Your task to perform on an android device: open chrome and create a bookmark for the current page Image 0: 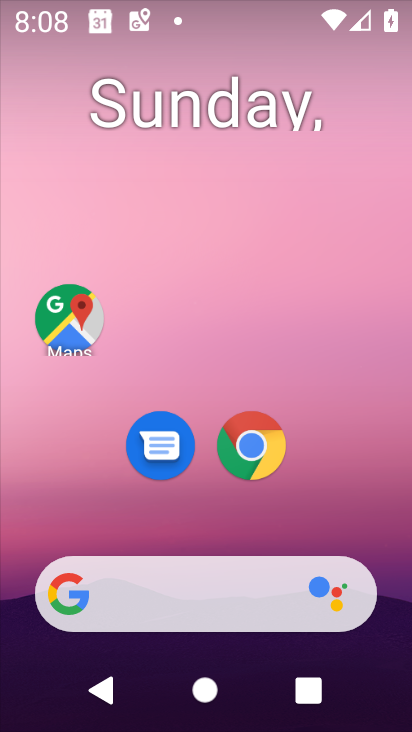
Step 0: click (251, 438)
Your task to perform on an android device: open chrome and create a bookmark for the current page Image 1: 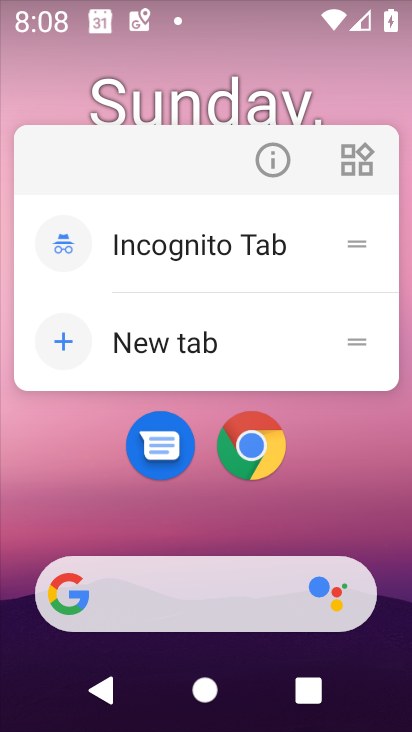
Step 1: click (258, 447)
Your task to perform on an android device: open chrome and create a bookmark for the current page Image 2: 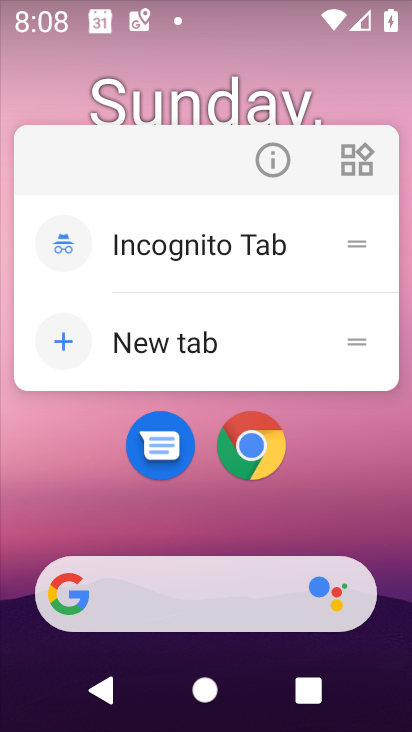
Step 2: click (258, 447)
Your task to perform on an android device: open chrome and create a bookmark for the current page Image 3: 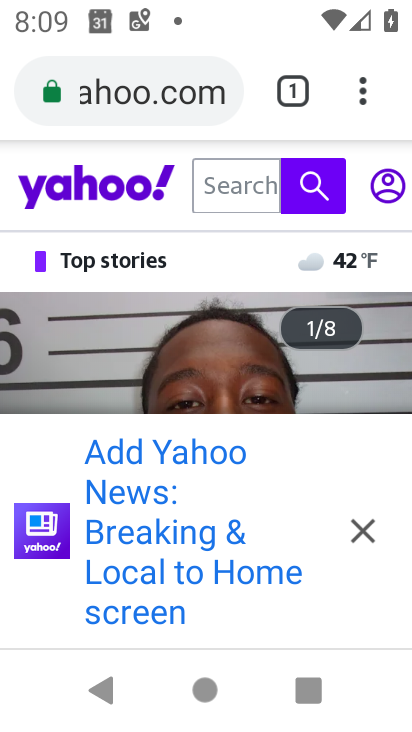
Step 3: click (371, 87)
Your task to perform on an android device: open chrome and create a bookmark for the current page Image 4: 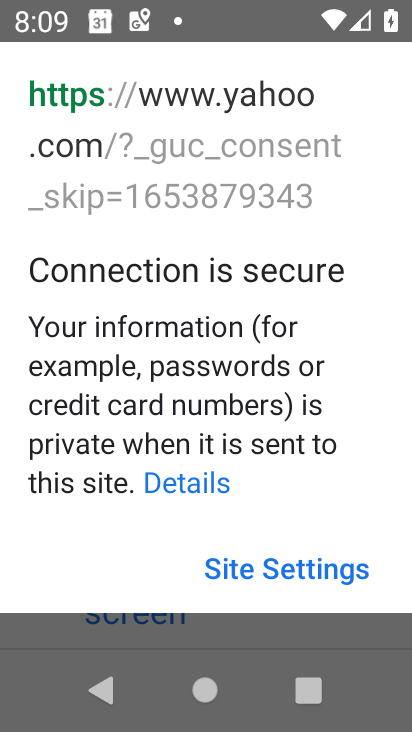
Step 4: press back button
Your task to perform on an android device: open chrome and create a bookmark for the current page Image 5: 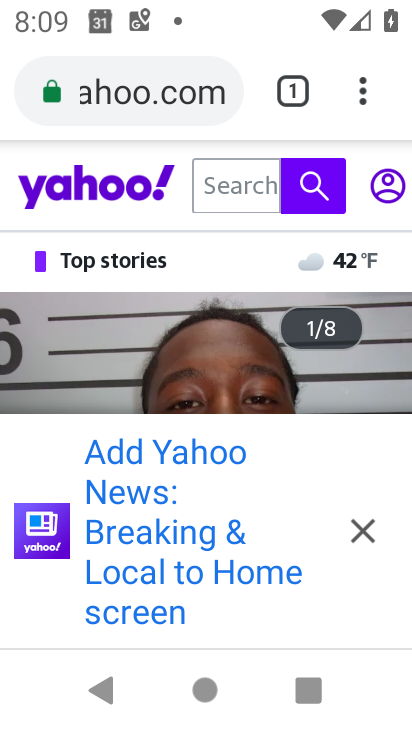
Step 5: click (355, 94)
Your task to perform on an android device: open chrome and create a bookmark for the current page Image 6: 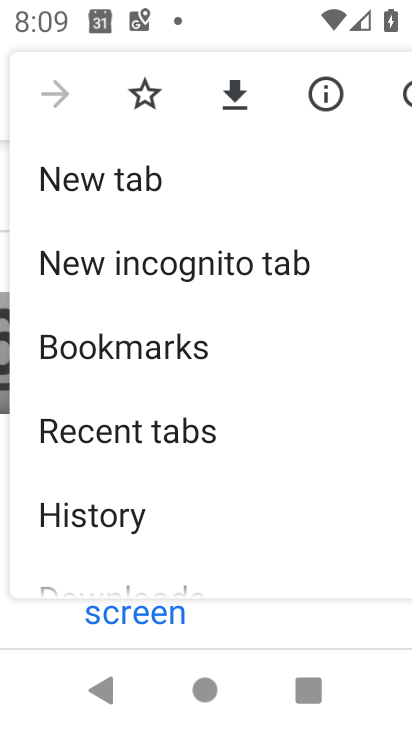
Step 6: click (143, 85)
Your task to perform on an android device: open chrome and create a bookmark for the current page Image 7: 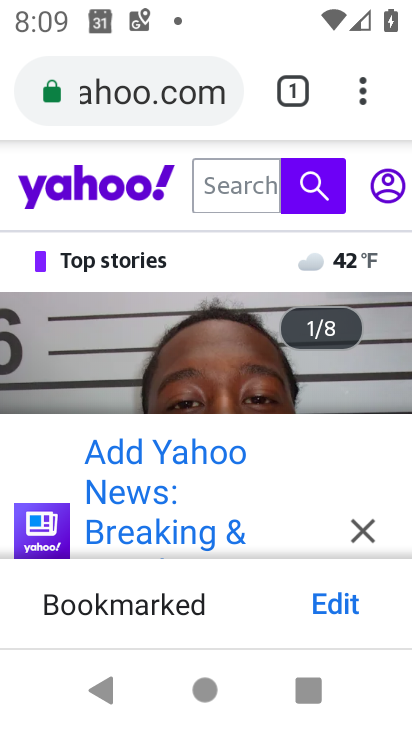
Step 7: task complete